Your task to perform on an android device: Go to location settings Image 0: 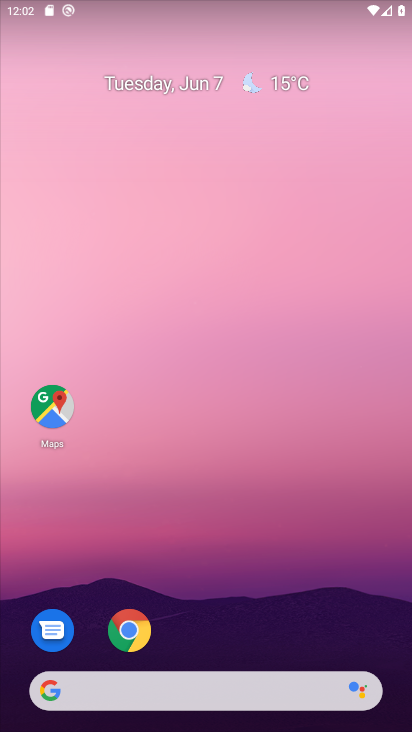
Step 0: drag from (376, 596) to (357, 118)
Your task to perform on an android device: Go to location settings Image 1: 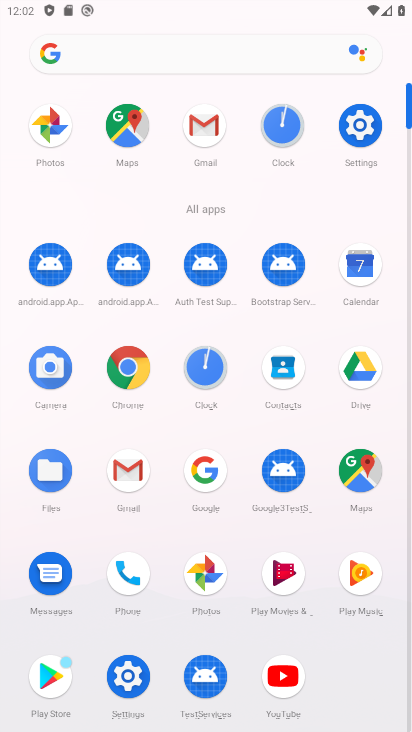
Step 1: click (144, 691)
Your task to perform on an android device: Go to location settings Image 2: 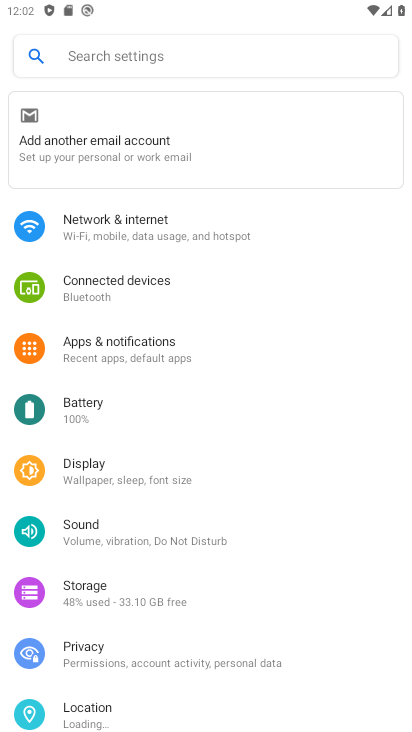
Step 2: drag from (207, 641) to (271, 300)
Your task to perform on an android device: Go to location settings Image 3: 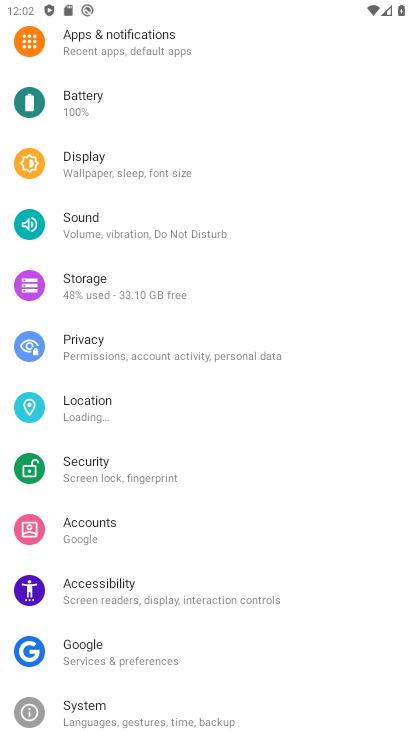
Step 3: drag from (278, 578) to (309, 277)
Your task to perform on an android device: Go to location settings Image 4: 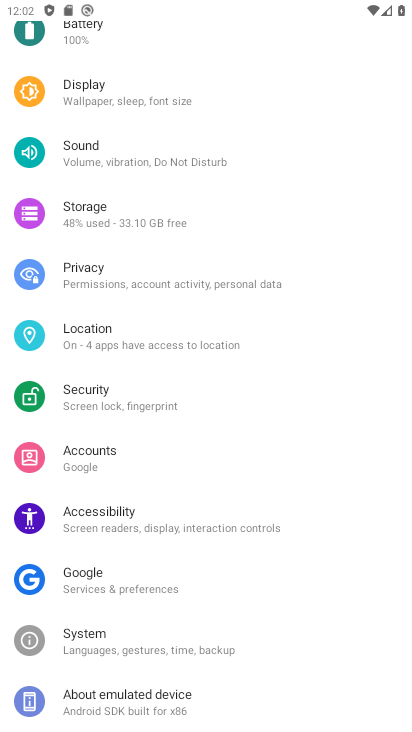
Step 4: click (126, 329)
Your task to perform on an android device: Go to location settings Image 5: 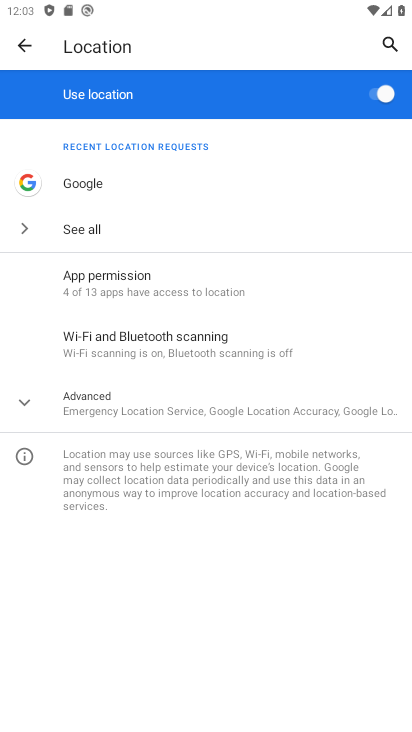
Step 5: click (170, 415)
Your task to perform on an android device: Go to location settings Image 6: 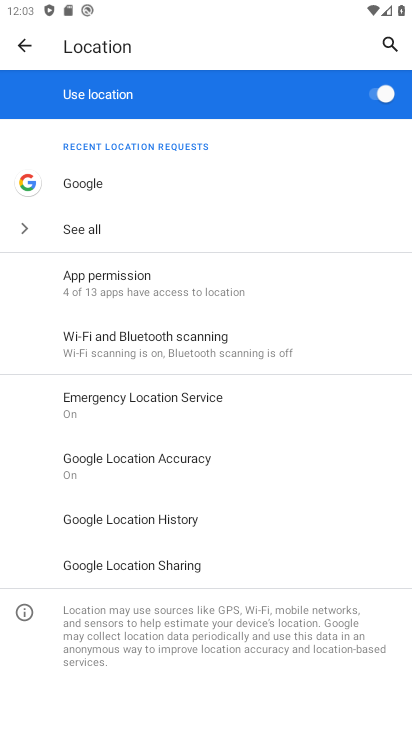
Step 6: task complete